Your task to perform on an android device: Open Youtube and go to "Your channel" Image 0: 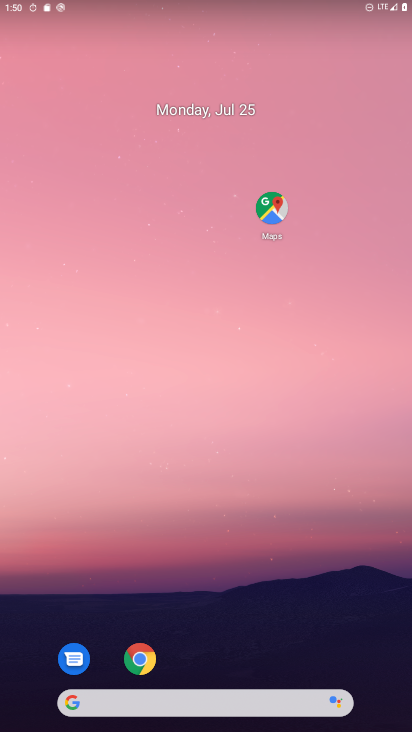
Step 0: drag from (39, 607) to (147, 30)
Your task to perform on an android device: Open Youtube and go to "Your channel" Image 1: 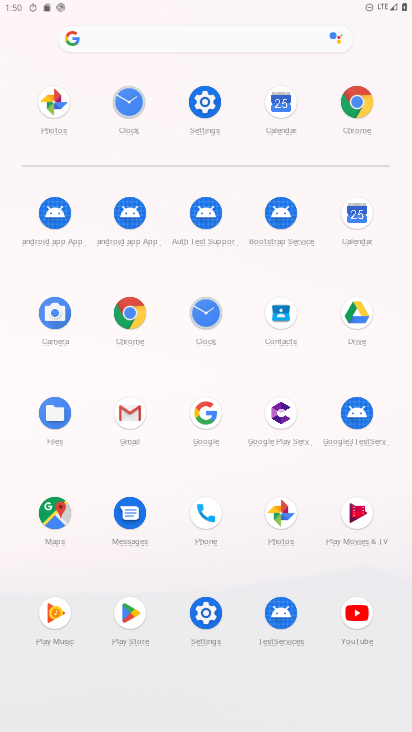
Step 1: click (357, 612)
Your task to perform on an android device: Open Youtube and go to "Your channel" Image 2: 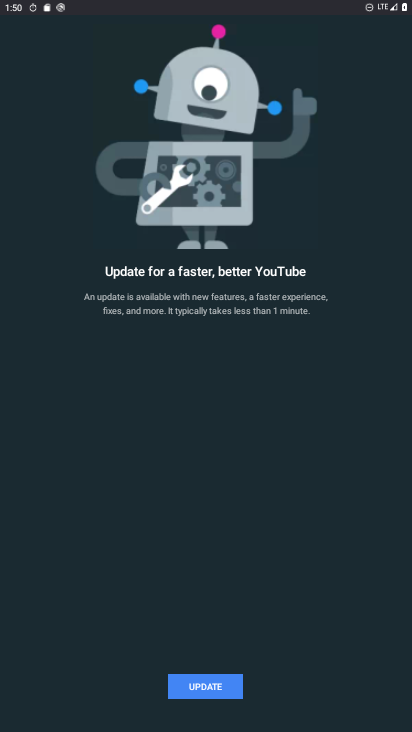
Step 2: click (178, 680)
Your task to perform on an android device: Open Youtube and go to "Your channel" Image 3: 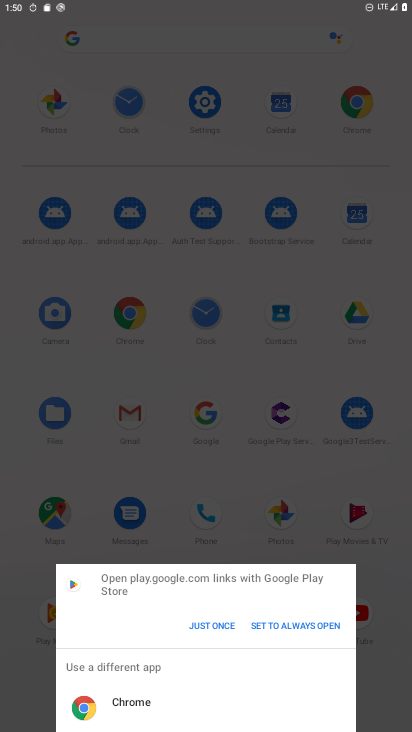
Step 3: click (211, 619)
Your task to perform on an android device: Open Youtube and go to "Your channel" Image 4: 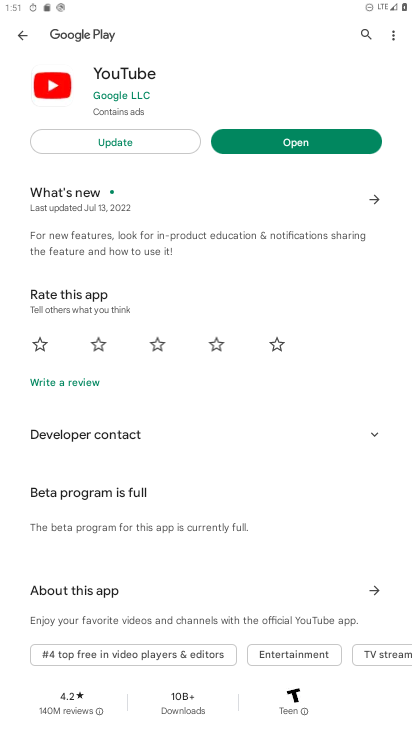
Step 4: click (287, 132)
Your task to perform on an android device: Open Youtube and go to "Your channel" Image 5: 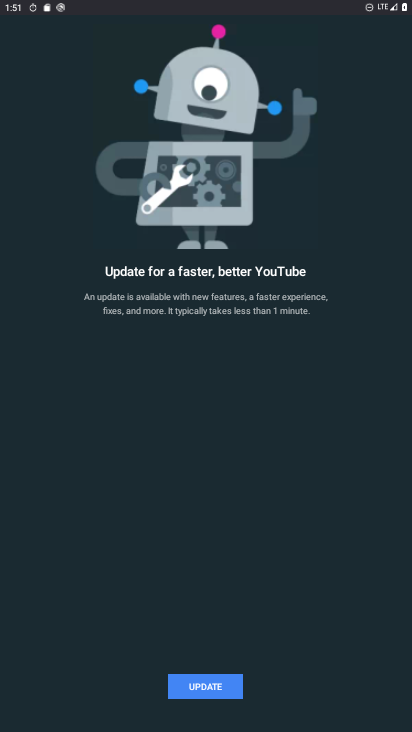
Step 5: task complete